Your task to perform on an android device: Go to battery settings Image 0: 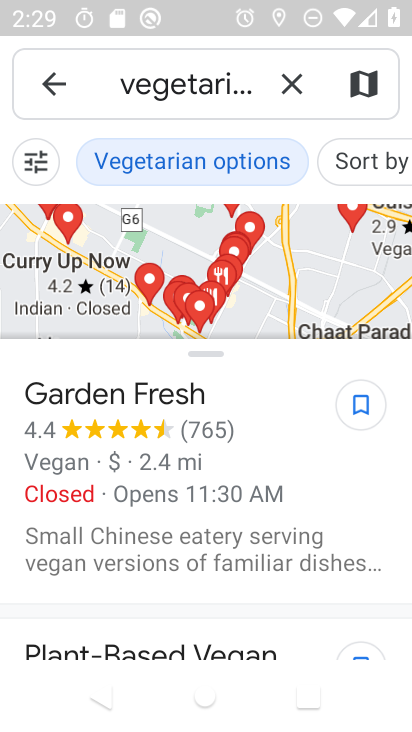
Step 0: press back button
Your task to perform on an android device: Go to battery settings Image 1: 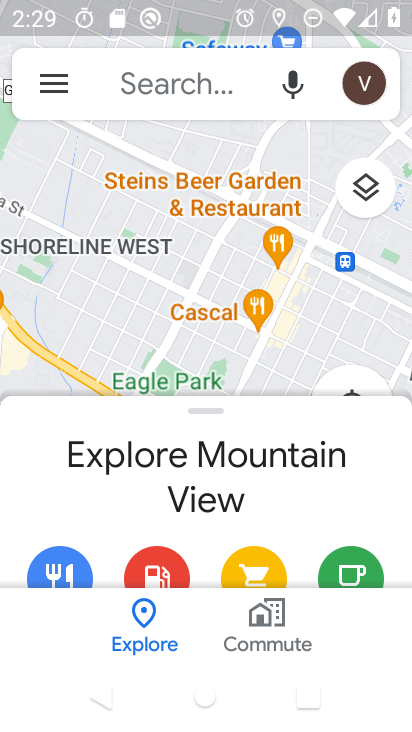
Step 1: press back button
Your task to perform on an android device: Go to battery settings Image 2: 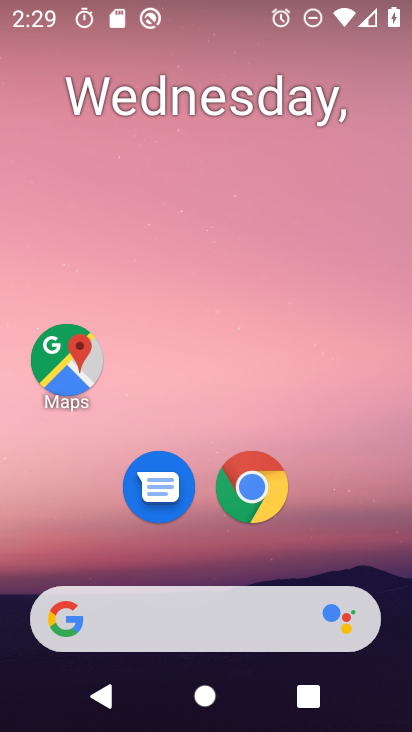
Step 2: drag from (172, 560) to (221, 20)
Your task to perform on an android device: Go to battery settings Image 3: 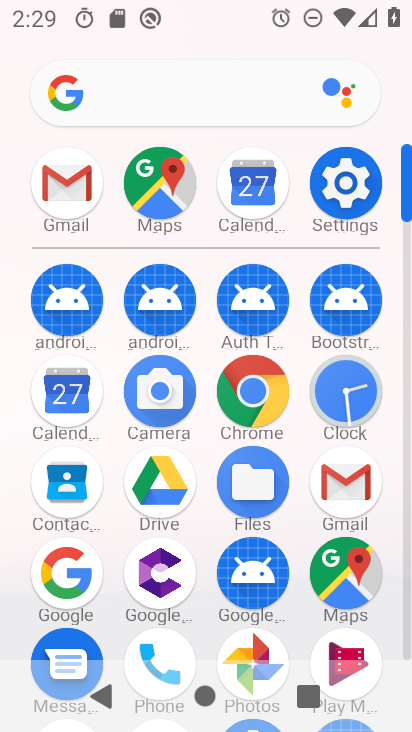
Step 3: click (329, 178)
Your task to perform on an android device: Go to battery settings Image 4: 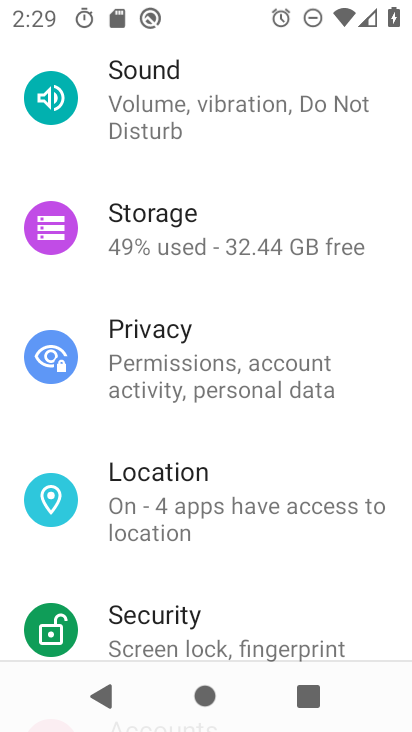
Step 4: drag from (246, 127) to (242, 607)
Your task to perform on an android device: Go to battery settings Image 5: 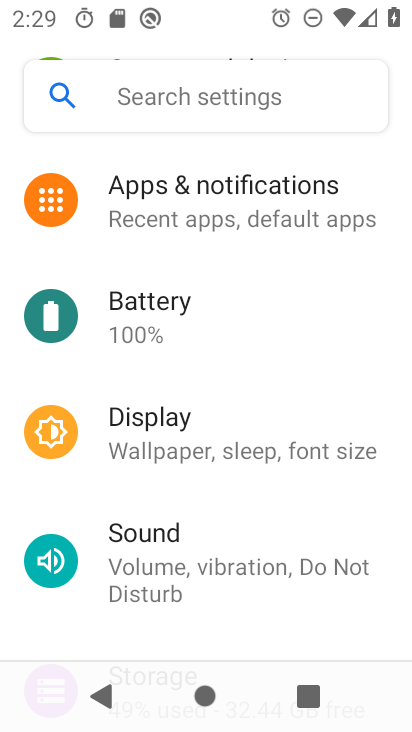
Step 5: click (121, 299)
Your task to perform on an android device: Go to battery settings Image 6: 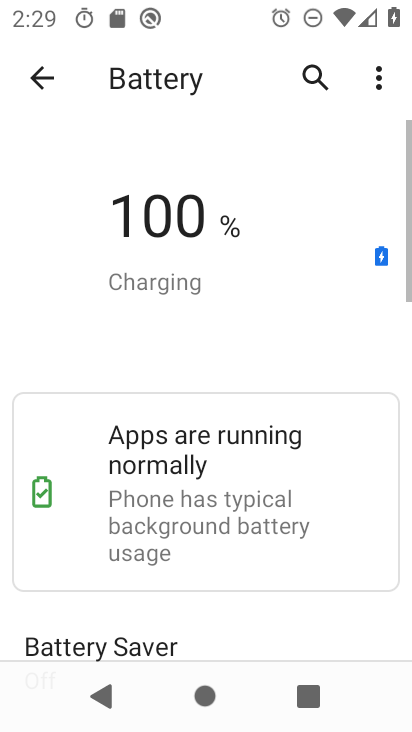
Step 6: task complete